Your task to perform on an android device: Go to CNN.com Image 0: 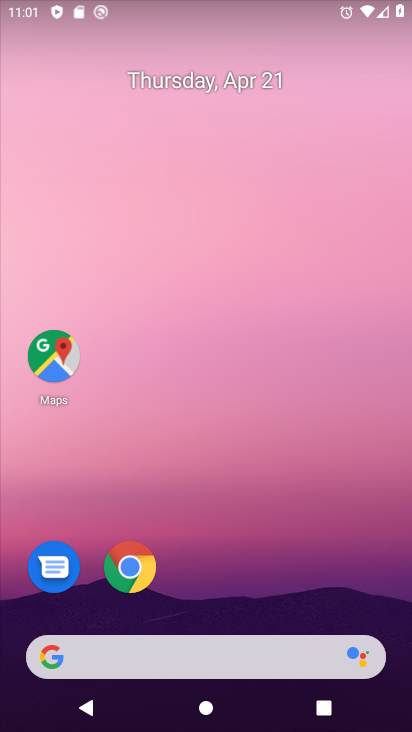
Step 0: click (137, 582)
Your task to perform on an android device: Go to CNN.com Image 1: 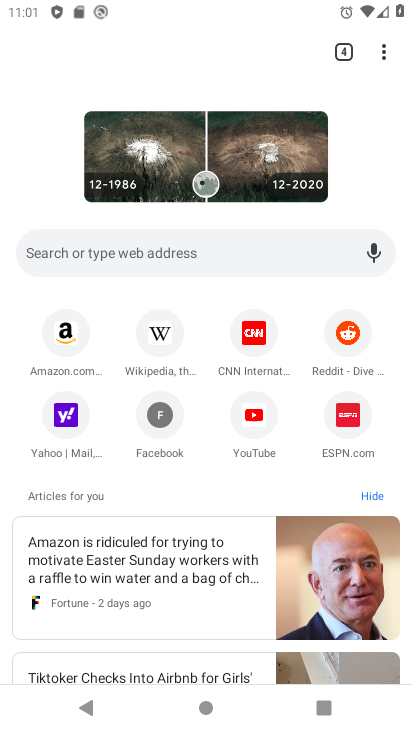
Step 1: click (174, 249)
Your task to perform on an android device: Go to CNN.com Image 2: 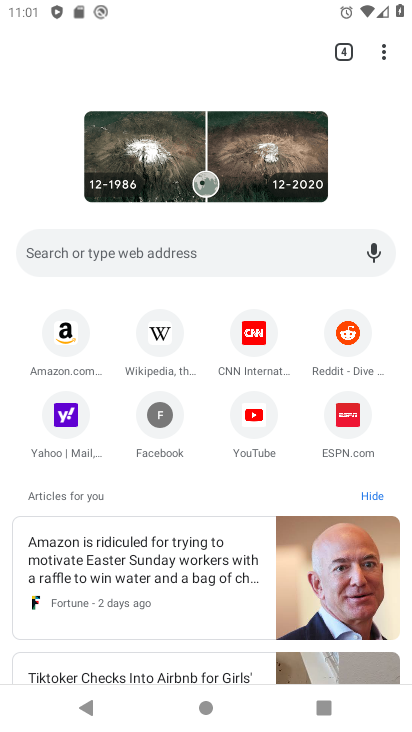
Step 2: click (174, 249)
Your task to perform on an android device: Go to CNN.com Image 3: 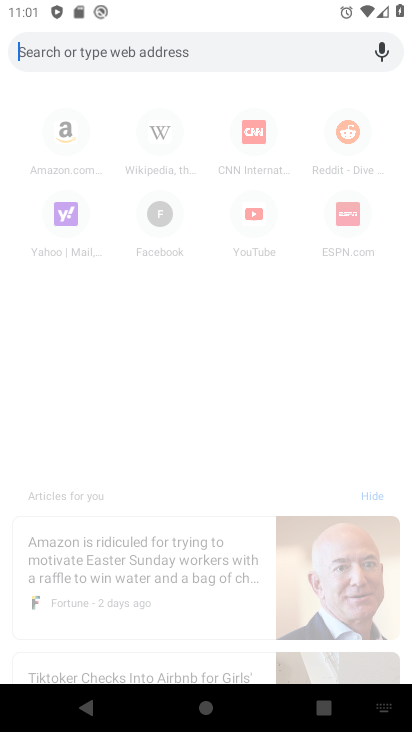
Step 3: type "CNN.com"
Your task to perform on an android device: Go to CNN.com Image 4: 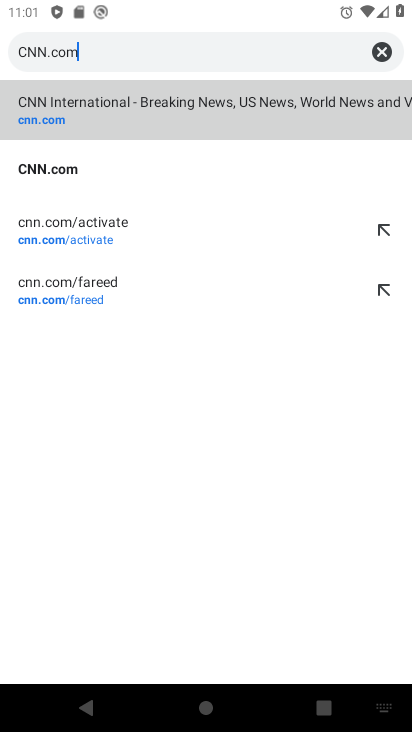
Step 4: click (65, 160)
Your task to perform on an android device: Go to CNN.com Image 5: 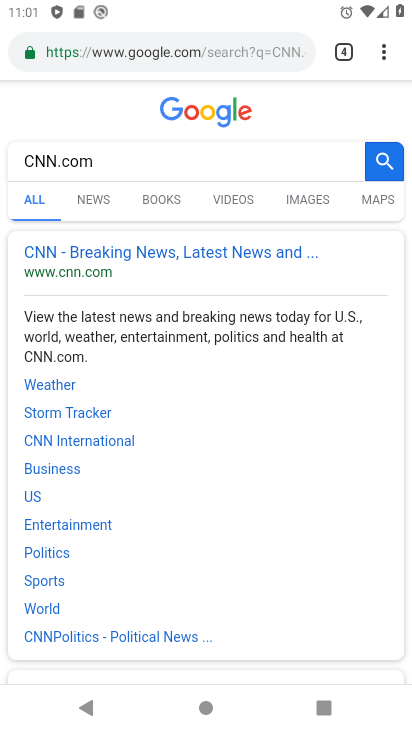
Step 5: task complete